Your task to perform on an android device: turn on notifications settings in the gmail app Image 0: 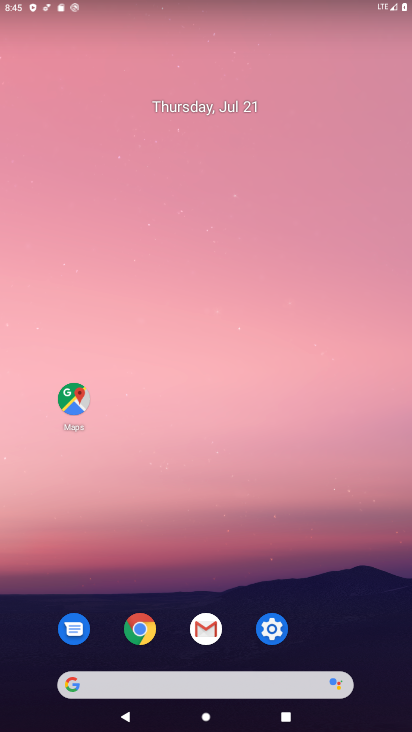
Step 0: click (205, 619)
Your task to perform on an android device: turn on notifications settings in the gmail app Image 1: 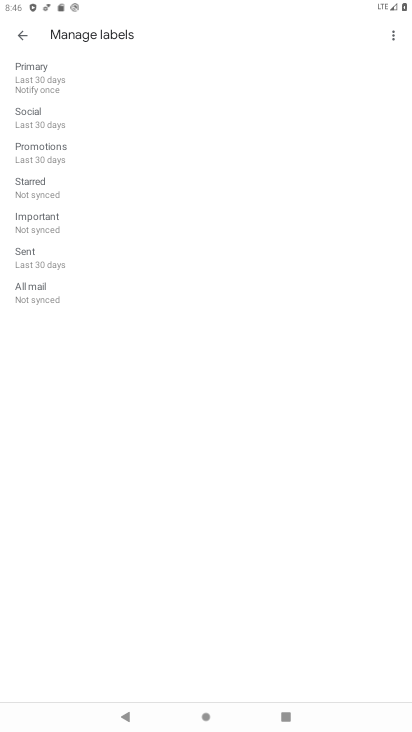
Step 1: click (9, 37)
Your task to perform on an android device: turn on notifications settings in the gmail app Image 2: 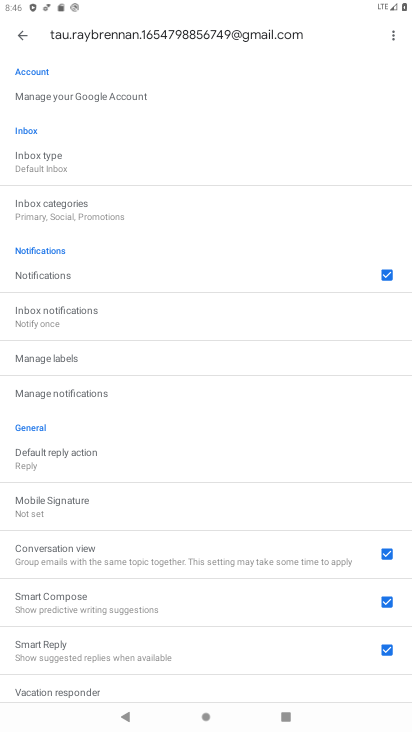
Step 2: task complete